Your task to perform on an android device: move a message to another label in the gmail app Image 0: 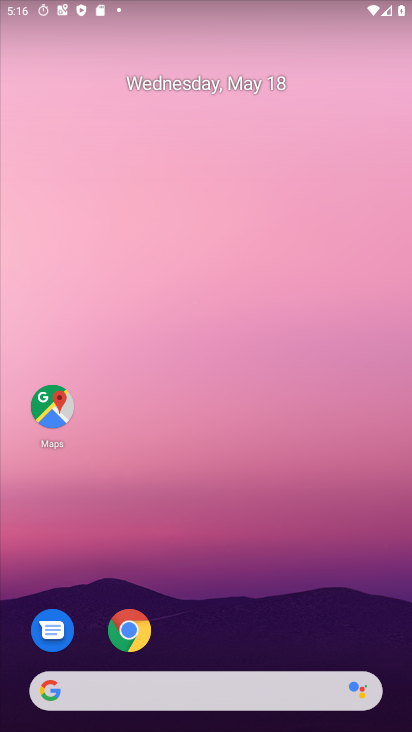
Step 0: drag from (240, 670) to (276, 283)
Your task to perform on an android device: move a message to another label in the gmail app Image 1: 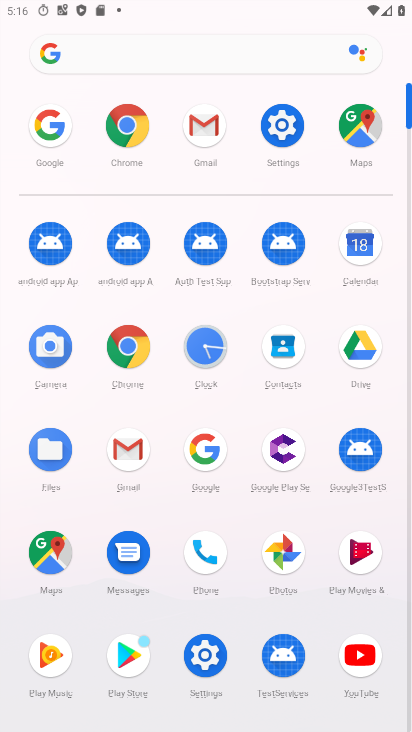
Step 1: click (206, 135)
Your task to perform on an android device: move a message to another label in the gmail app Image 2: 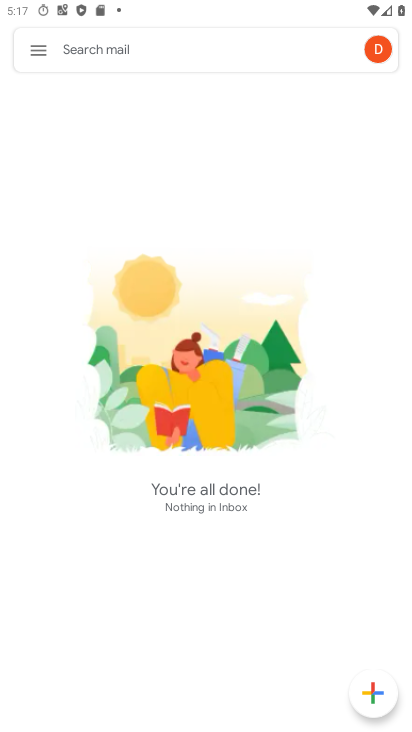
Step 2: task complete